Your task to perform on an android device: Empty the shopping cart on target. Image 0: 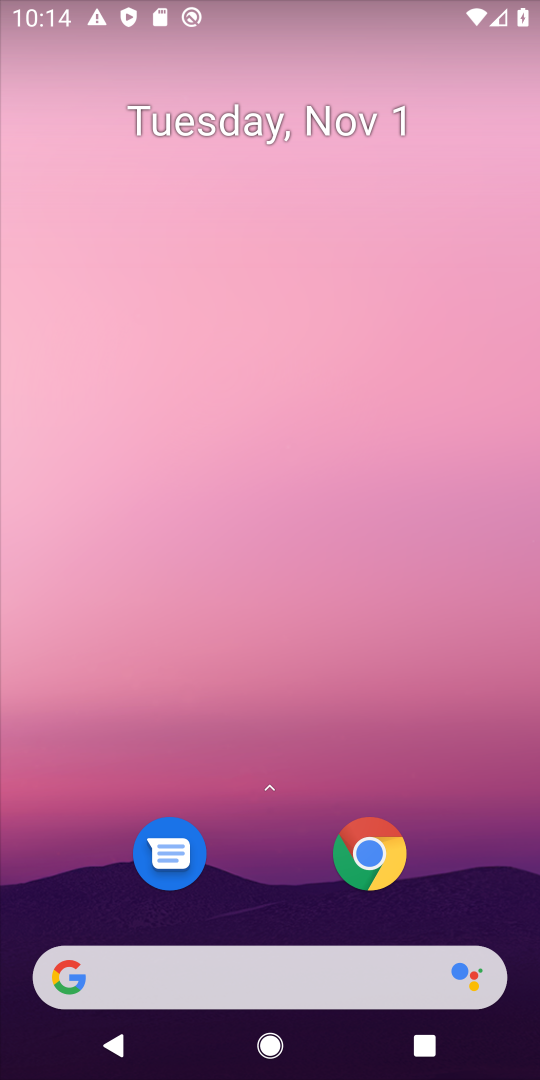
Step 0: click (264, 976)
Your task to perform on an android device: Empty the shopping cart on target. Image 1: 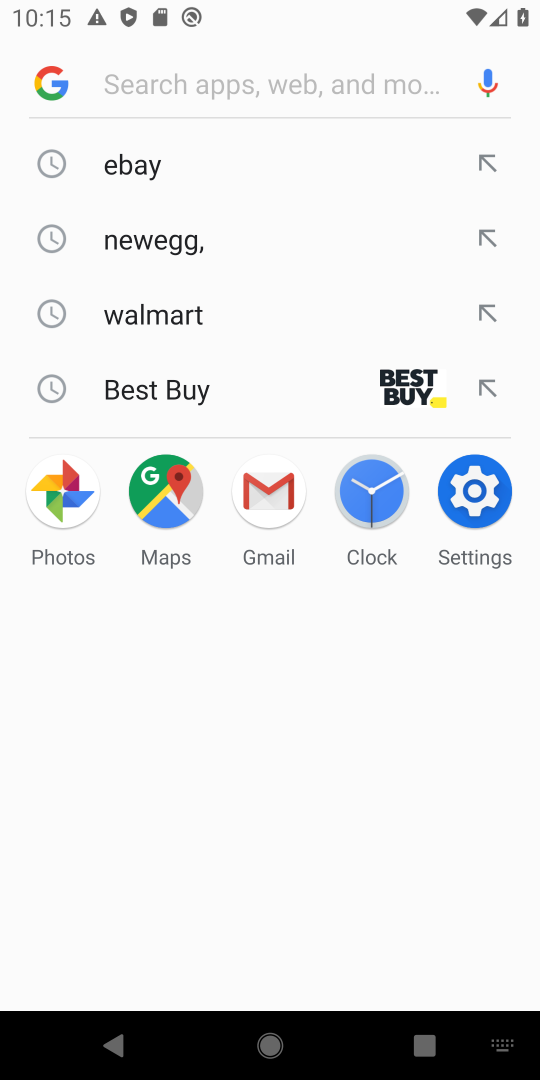
Step 1: type "target"
Your task to perform on an android device: Empty the shopping cart on target. Image 2: 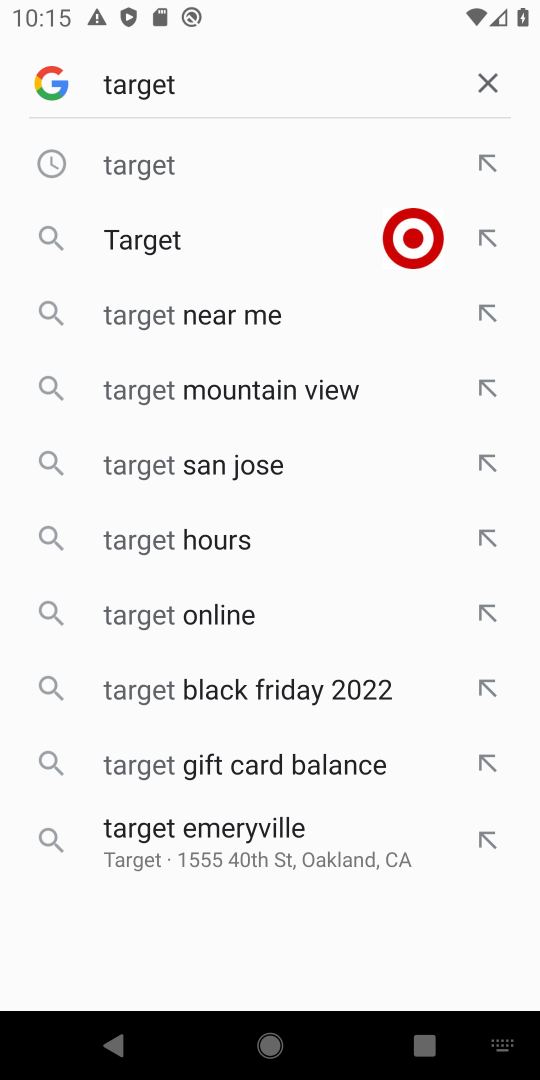
Step 2: click (150, 223)
Your task to perform on an android device: Empty the shopping cart on target. Image 3: 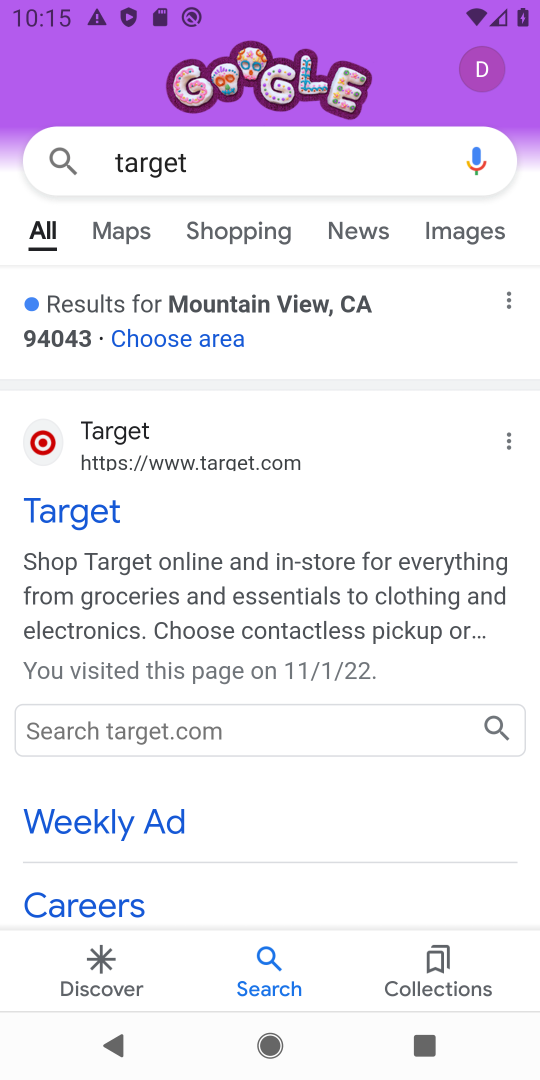
Step 3: click (68, 514)
Your task to perform on an android device: Empty the shopping cart on target. Image 4: 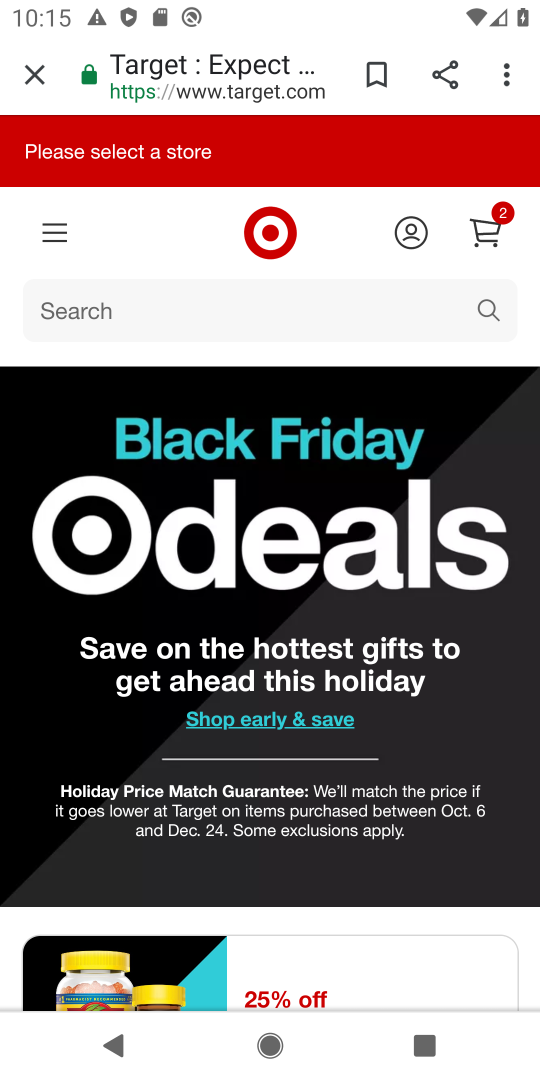
Step 4: click (483, 230)
Your task to perform on an android device: Empty the shopping cart on target. Image 5: 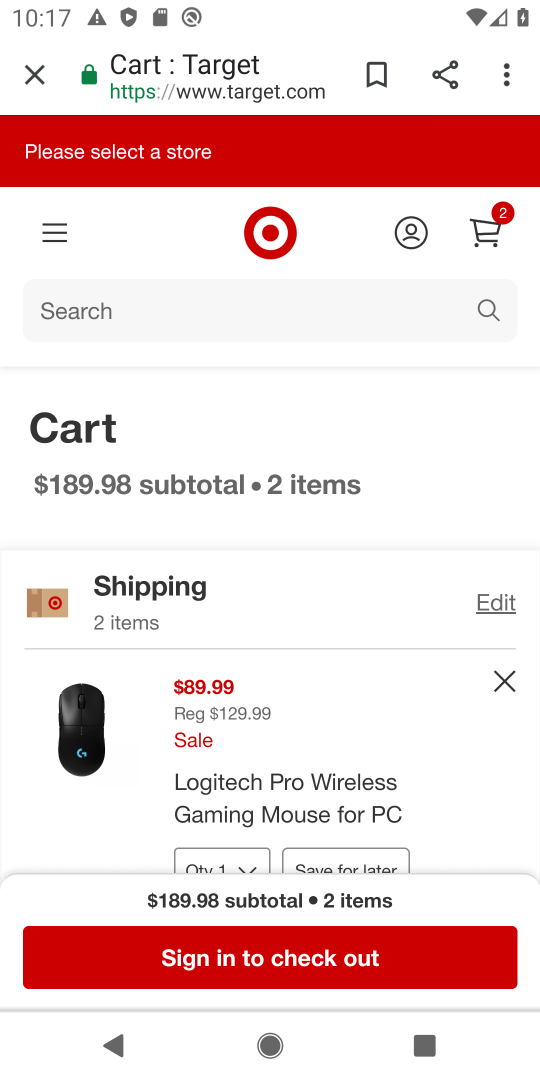
Step 5: task complete